Your task to perform on an android device: Open the stopwatch Image 0: 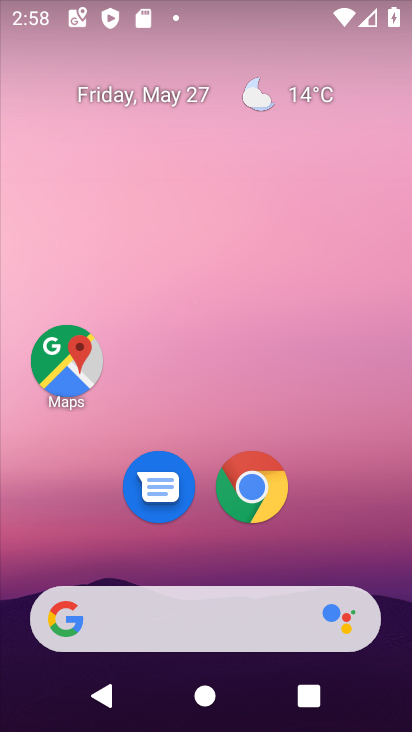
Step 0: drag from (399, 517) to (293, 84)
Your task to perform on an android device: Open the stopwatch Image 1: 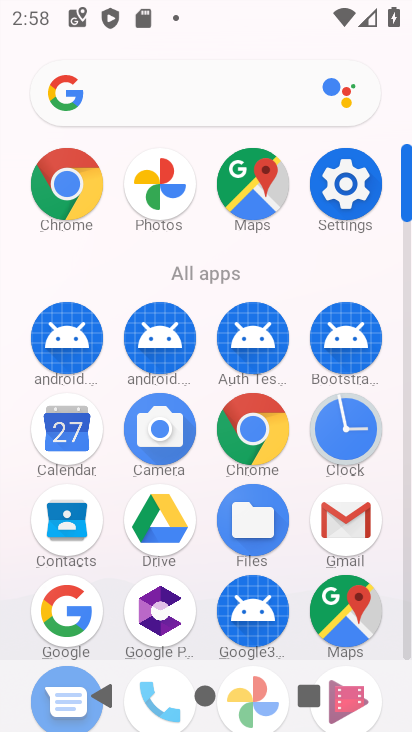
Step 1: click (359, 213)
Your task to perform on an android device: Open the stopwatch Image 2: 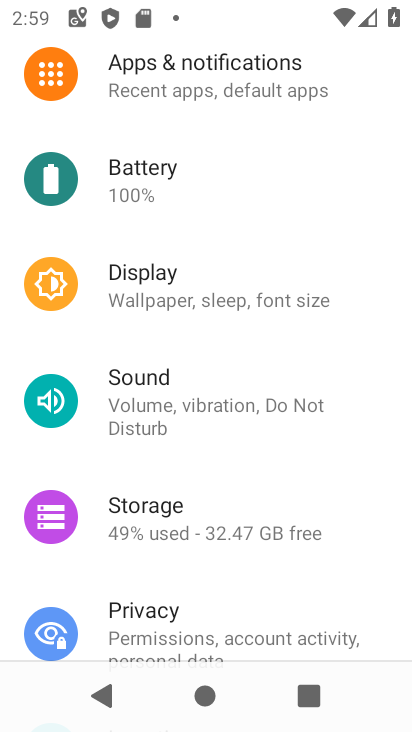
Step 2: press home button
Your task to perform on an android device: Open the stopwatch Image 3: 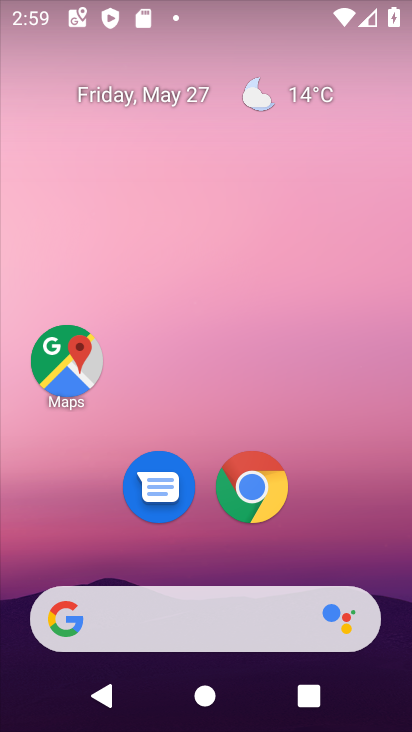
Step 3: drag from (79, 320) to (51, 88)
Your task to perform on an android device: Open the stopwatch Image 4: 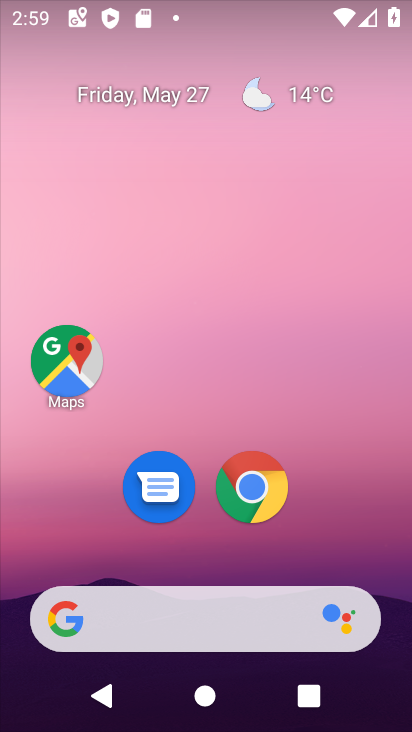
Step 4: drag from (325, 542) to (264, 143)
Your task to perform on an android device: Open the stopwatch Image 5: 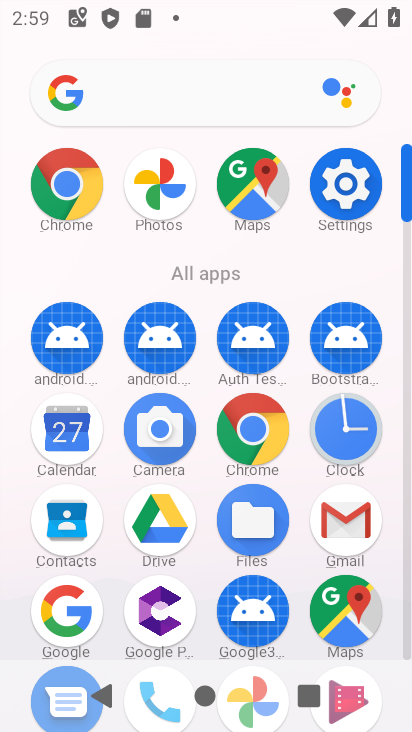
Step 5: click (352, 449)
Your task to perform on an android device: Open the stopwatch Image 6: 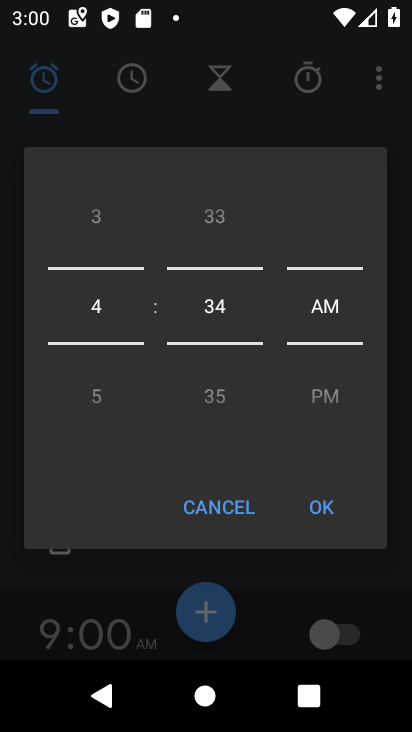
Step 6: click (212, 518)
Your task to perform on an android device: Open the stopwatch Image 7: 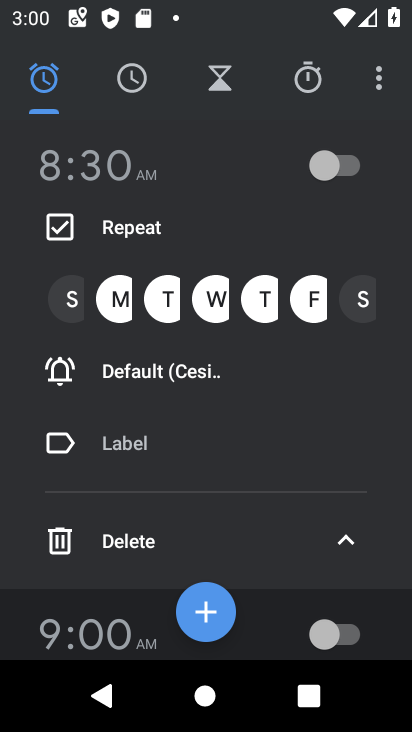
Step 7: click (323, 78)
Your task to perform on an android device: Open the stopwatch Image 8: 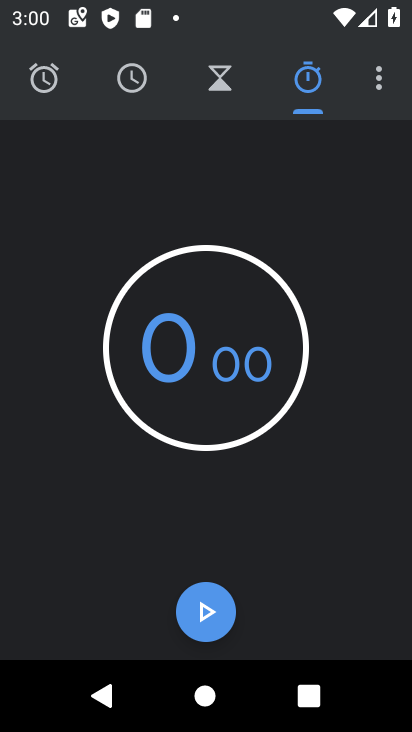
Step 8: task complete